Your task to perform on an android device: turn vacation reply on in the gmail app Image 0: 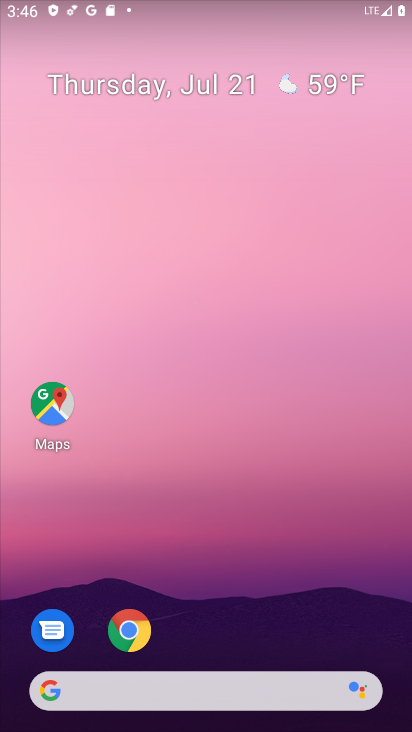
Step 0: drag from (214, 443) to (214, 154)
Your task to perform on an android device: turn vacation reply on in the gmail app Image 1: 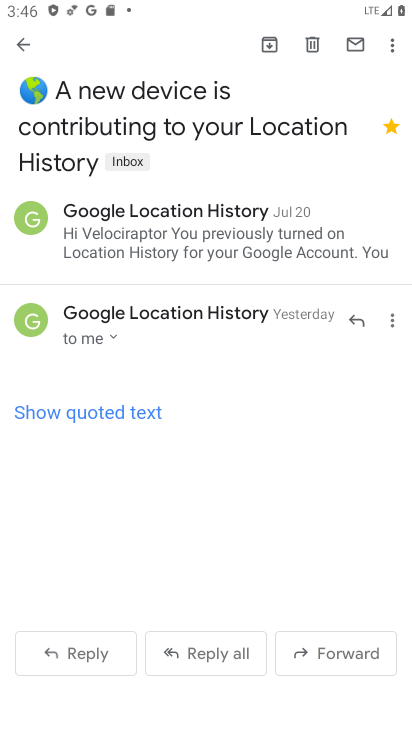
Step 1: click (23, 33)
Your task to perform on an android device: turn vacation reply on in the gmail app Image 2: 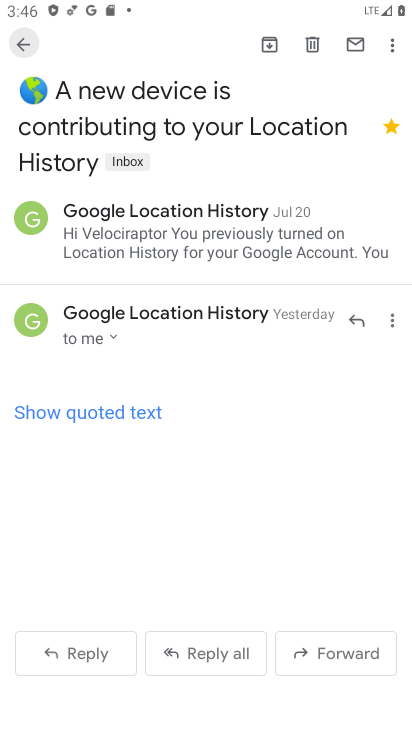
Step 2: click (23, 31)
Your task to perform on an android device: turn vacation reply on in the gmail app Image 3: 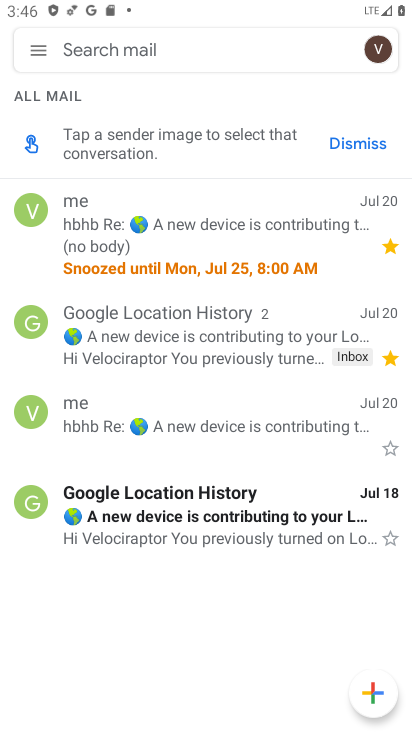
Step 3: drag from (137, 514) to (124, 418)
Your task to perform on an android device: turn vacation reply on in the gmail app Image 4: 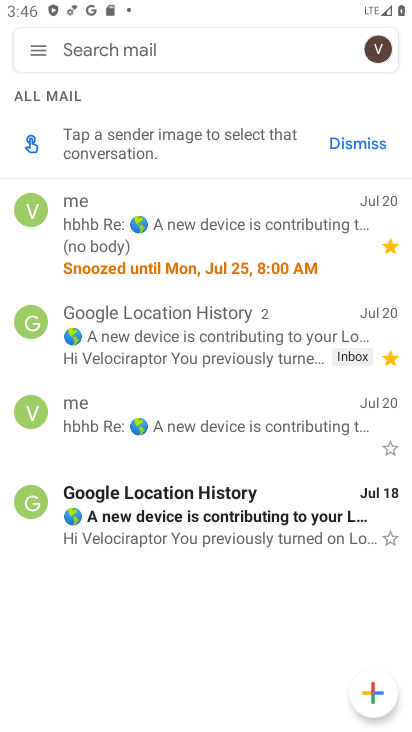
Step 4: click (41, 57)
Your task to perform on an android device: turn vacation reply on in the gmail app Image 5: 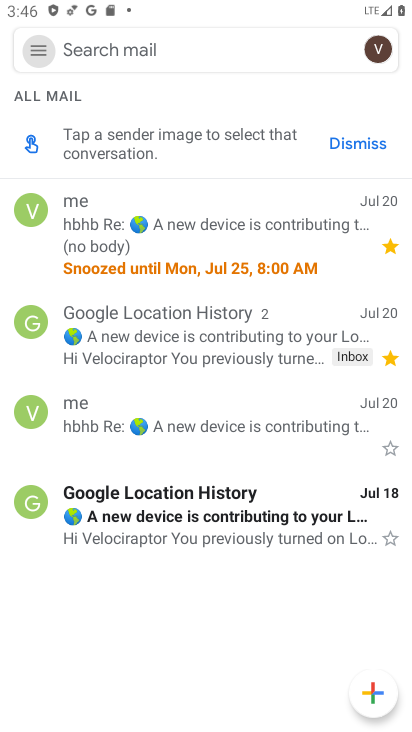
Step 5: click (41, 56)
Your task to perform on an android device: turn vacation reply on in the gmail app Image 6: 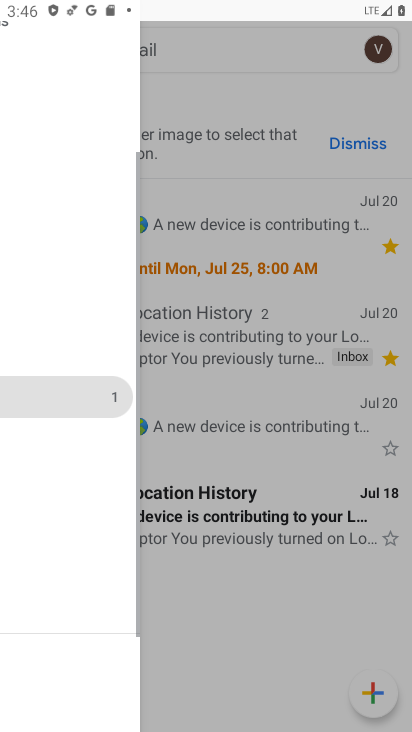
Step 6: click (41, 56)
Your task to perform on an android device: turn vacation reply on in the gmail app Image 7: 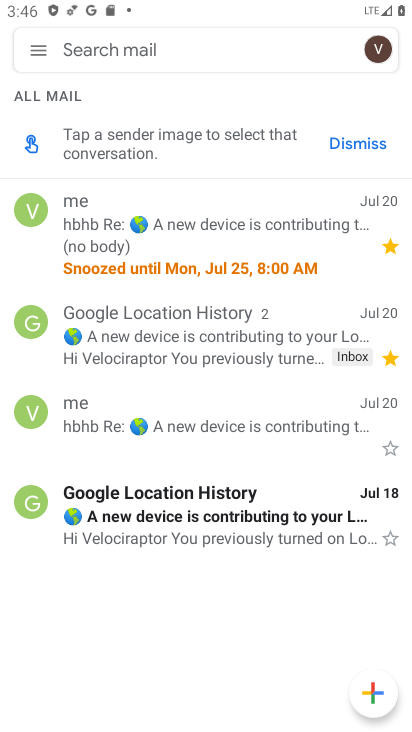
Step 7: click (39, 51)
Your task to perform on an android device: turn vacation reply on in the gmail app Image 8: 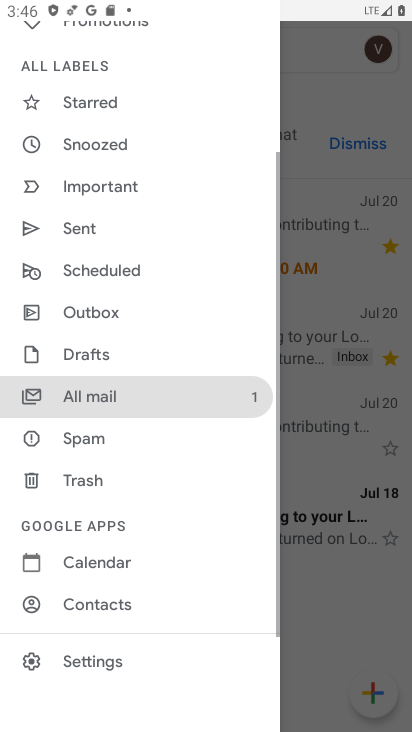
Step 8: click (43, 48)
Your task to perform on an android device: turn vacation reply on in the gmail app Image 9: 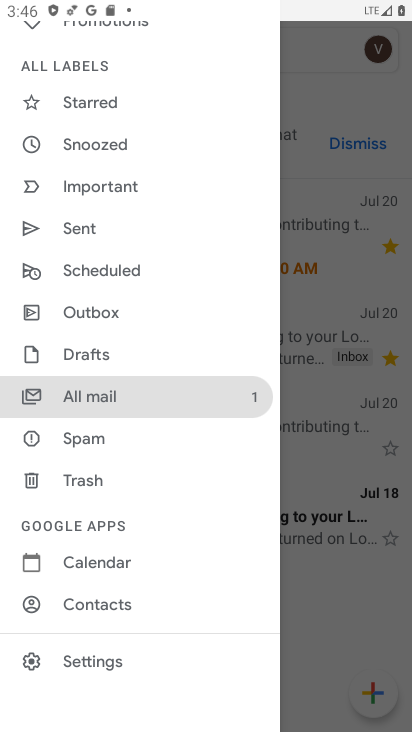
Step 9: click (73, 658)
Your task to perform on an android device: turn vacation reply on in the gmail app Image 10: 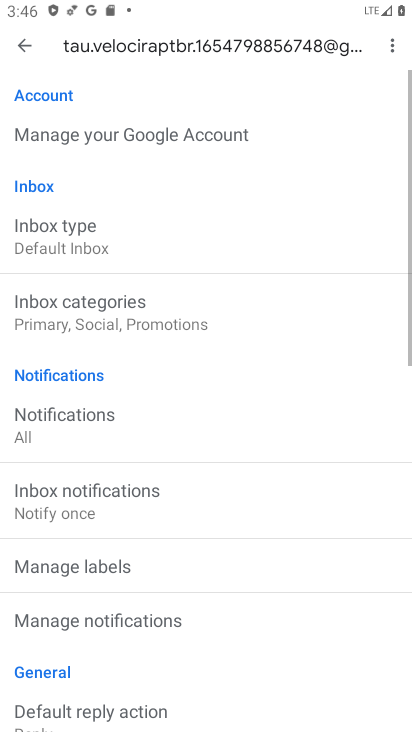
Step 10: drag from (161, 456) to (120, 117)
Your task to perform on an android device: turn vacation reply on in the gmail app Image 11: 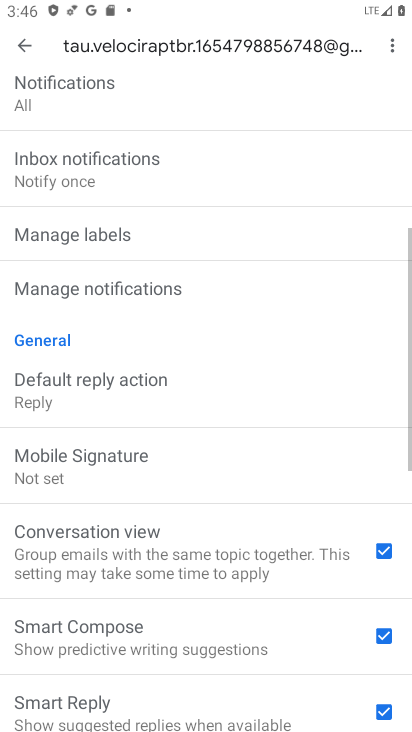
Step 11: click (106, 113)
Your task to perform on an android device: turn vacation reply on in the gmail app Image 12: 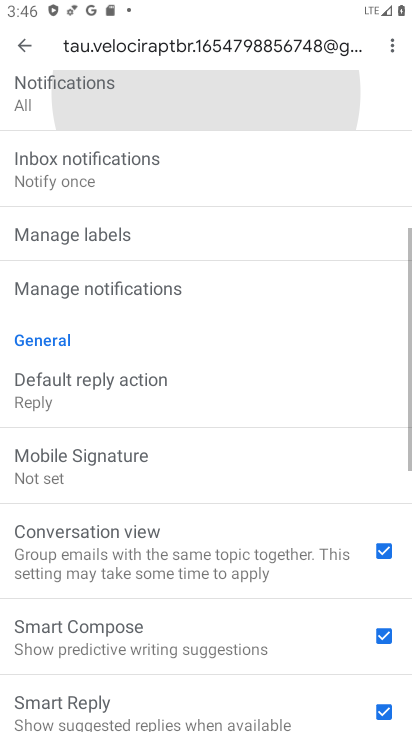
Step 12: drag from (96, 447) to (96, 161)
Your task to perform on an android device: turn vacation reply on in the gmail app Image 13: 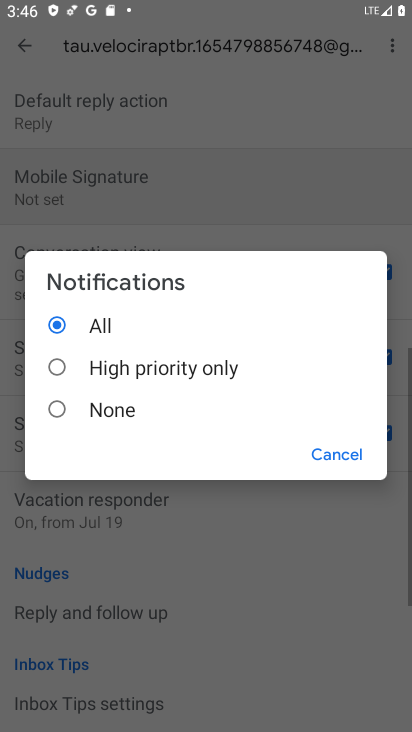
Step 13: drag from (122, 463) to (135, 149)
Your task to perform on an android device: turn vacation reply on in the gmail app Image 14: 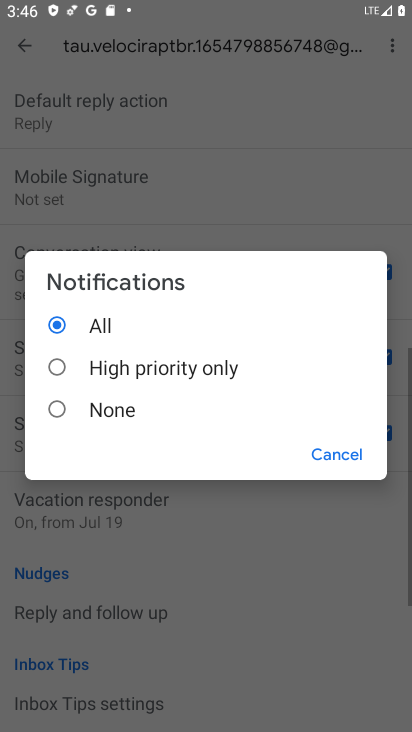
Step 14: drag from (93, 644) to (93, 241)
Your task to perform on an android device: turn vacation reply on in the gmail app Image 15: 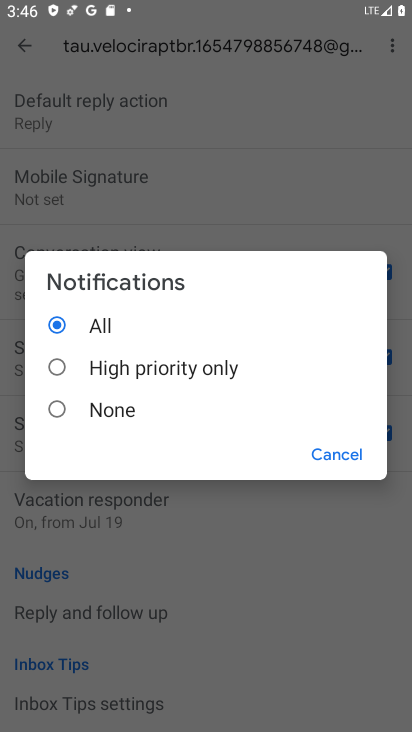
Step 15: click (338, 451)
Your task to perform on an android device: turn vacation reply on in the gmail app Image 16: 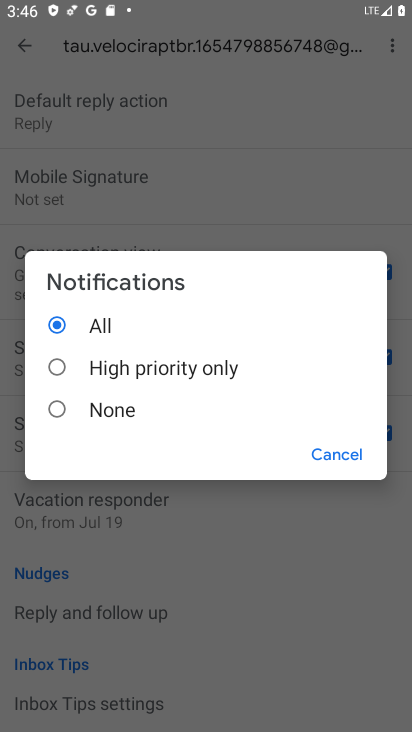
Step 16: click (338, 451)
Your task to perform on an android device: turn vacation reply on in the gmail app Image 17: 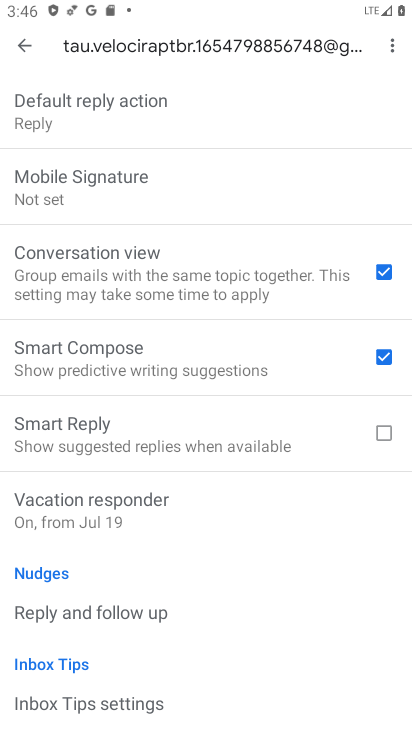
Step 17: click (92, 506)
Your task to perform on an android device: turn vacation reply on in the gmail app Image 18: 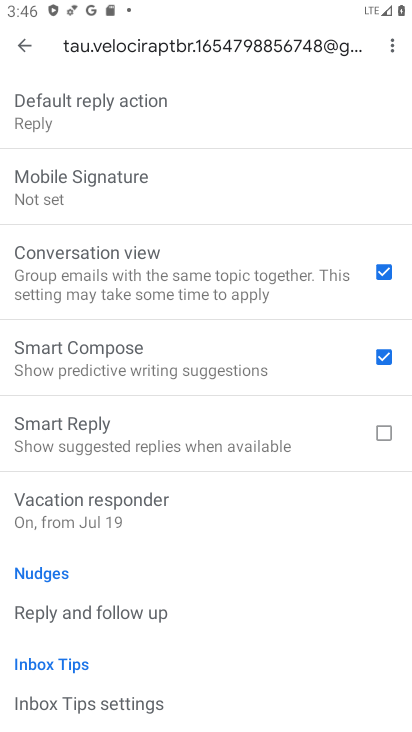
Step 18: click (93, 506)
Your task to perform on an android device: turn vacation reply on in the gmail app Image 19: 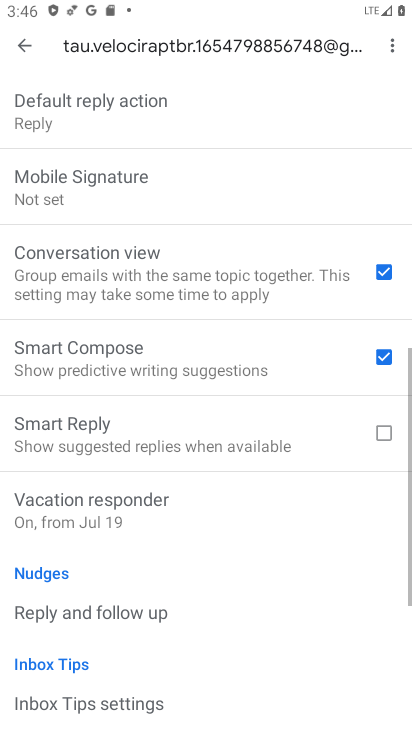
Step 19: click (94, 505)
Your task to perform on an android device: turn vacation reply on in the gmail app Image 20: 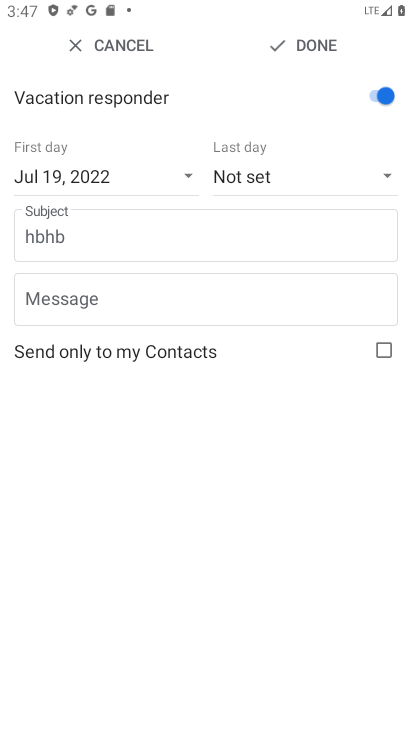
Step 20: task complete